Your task to perform on an android device: check storage Image 0: 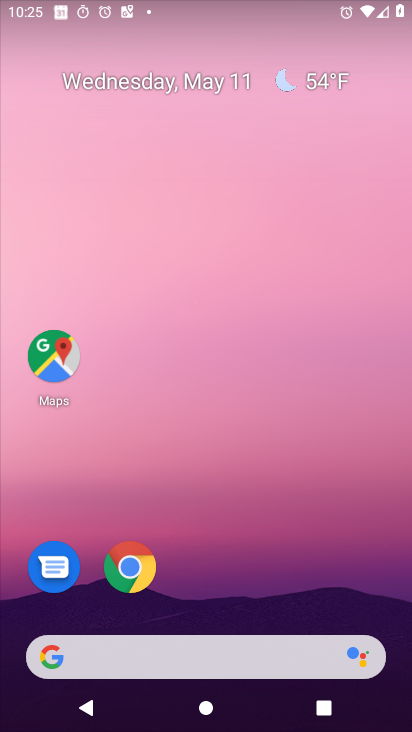
Step 0: drag from (246, 605) to (320, 102)
Your task to perform on an android device: check storage Image 1: 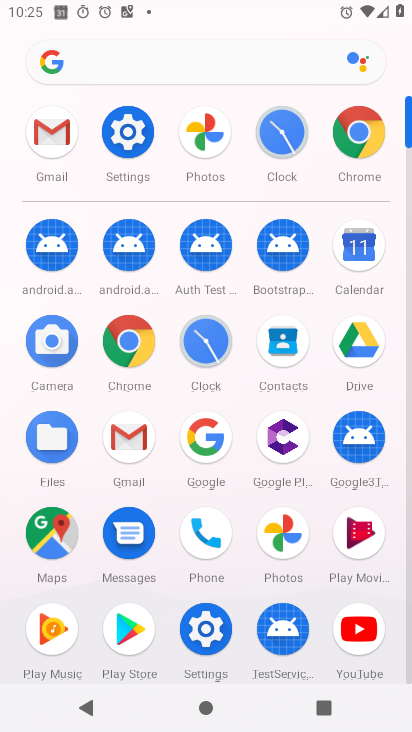
Step 1: click (203, 641)
Your task to perform on an android device: check storage Image 2: 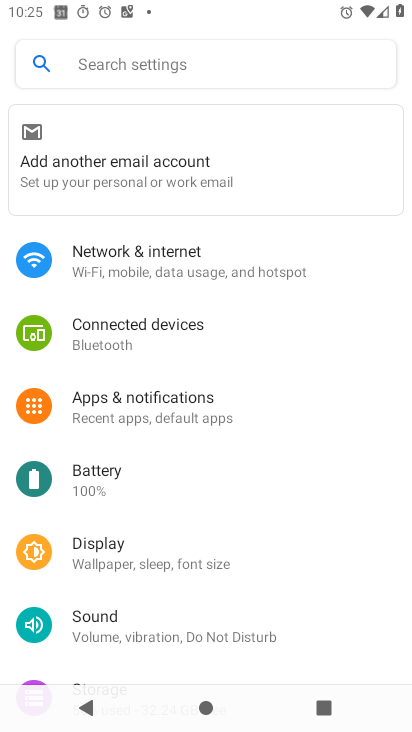
Step 2: drag from (138, 556) to (163, 278)
Your task to perform on an android device: check storage Image 3: 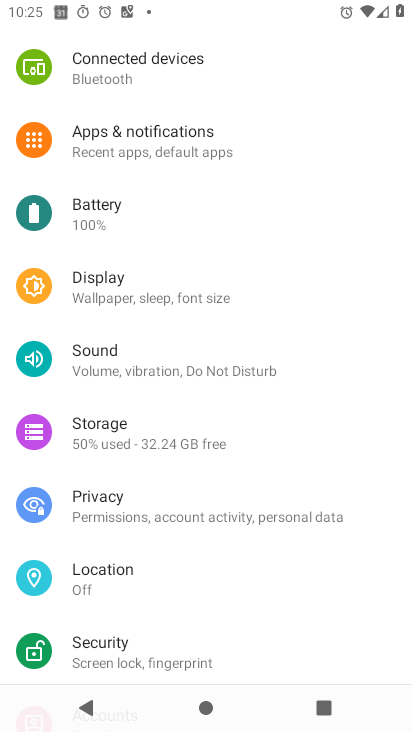
Step 3: click (121, 437)
Your task to perform on an android device: check storage Image 4: 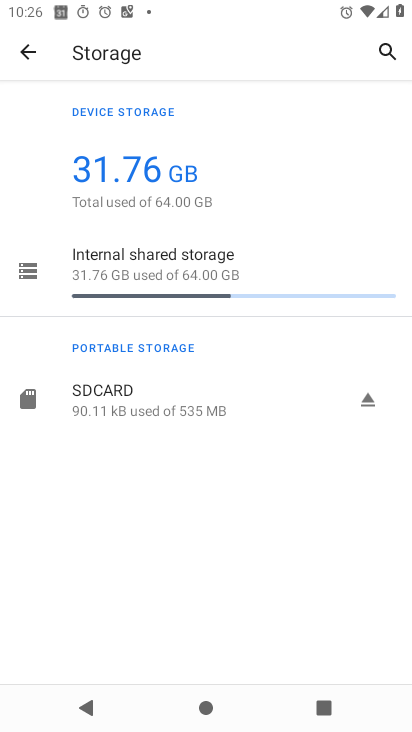
Step 4: click (192, 271)
Your task to perform on an android device: check storage Image 5: 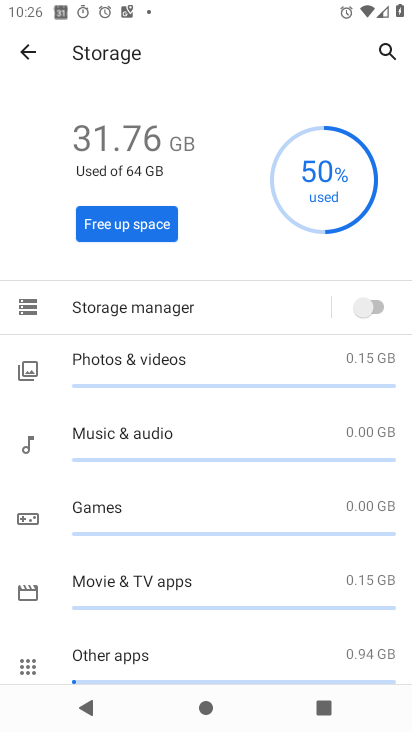
Step 5: task complete